Your task to perform on an android device: Search for Italian restaurants on Maps Image 0: 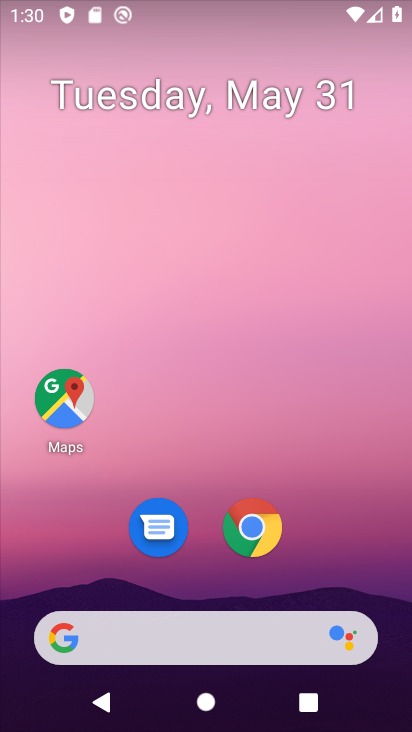
Step 0: drag from (351, 537) to (316, 121)
Your task to perform on an android device: Search for Italian restaurants on Maps Image 1: 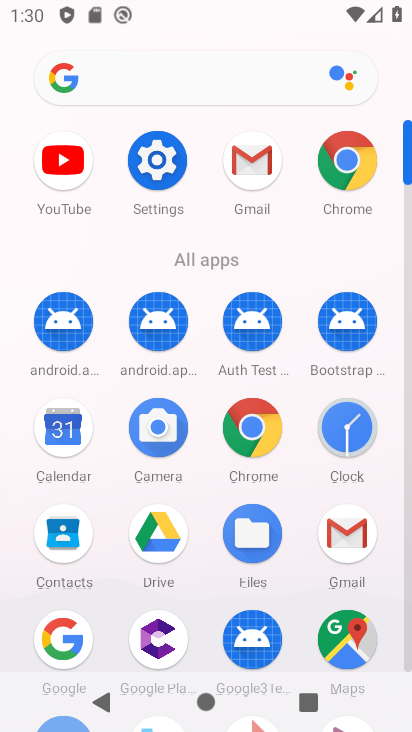
Step 1: drag from (396, 433) to (410, 146)
Your task to perform on an android device: Search for Italian restaurants on Maps Image 2: 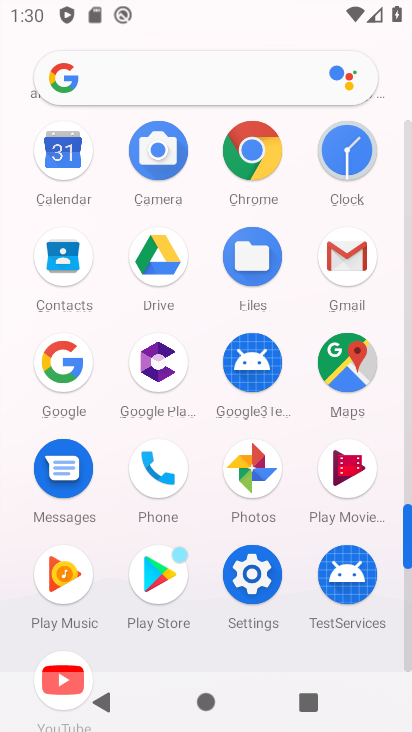
Step 2: click (350, 377)
Your task to perform on an android device: Search for Italian restaurants on Maps Image 3: 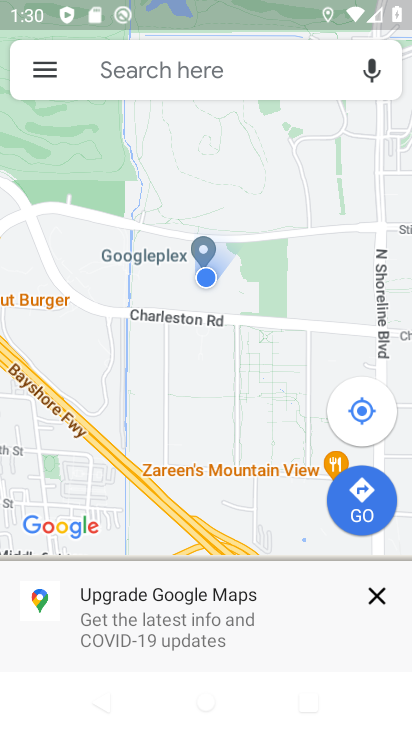
Step 3: click (190, 70)
Your task to perform on an android device: Search for Italian restaurants on Maps Image 4: 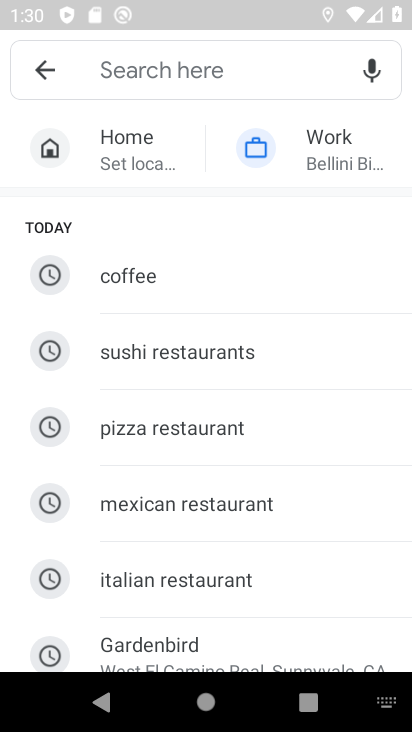
Step 4: click (148, 575)
Your task to perform on an android device: Search for Italian restaurants on Maps Image 5: 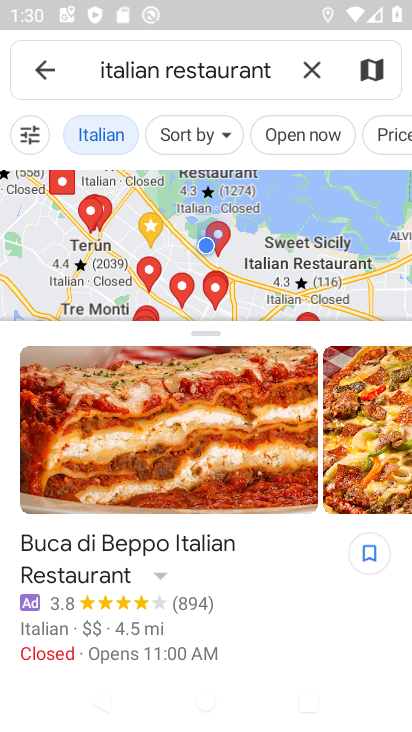
Step 5: task complete